Your task to perform on an android device: turn vacation reply on in the gmail app Image 0: 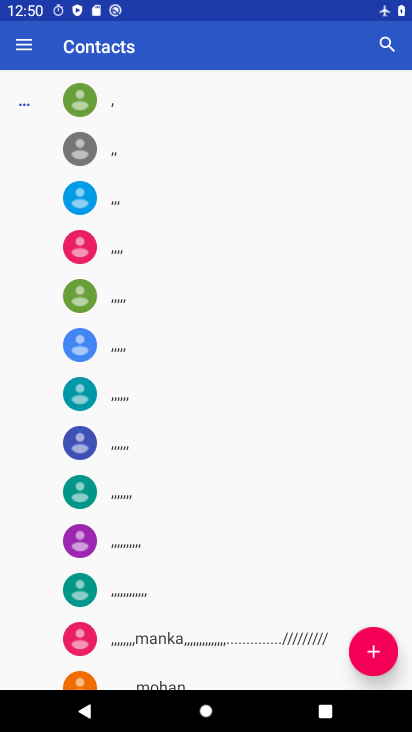
Step 0: press home button
Your task to perform on an android device: turn vacation reply on in the gmail app Image 1: 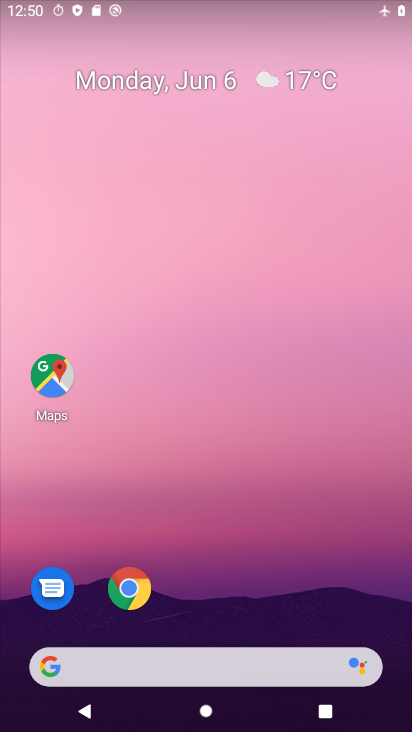
Step 1: drag from (216, 380) to (220, 52)
Your task to perform on an android device: turn vacation reply on in the gmail app Image 2: 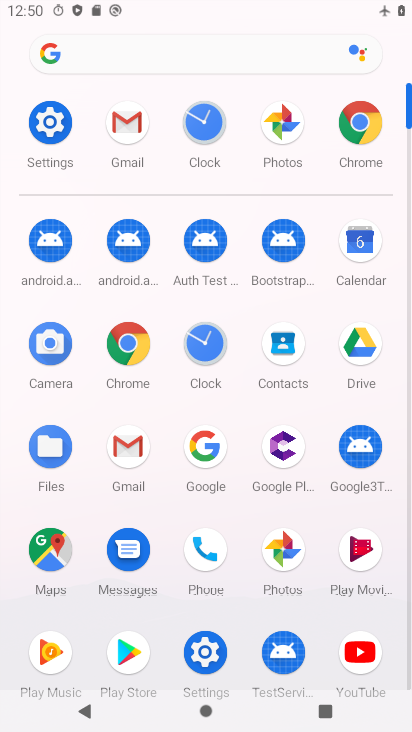
Step 2: click (128, 138)
Your task to perform on an android device: turn vacation reply on in the gmail app Image 3: 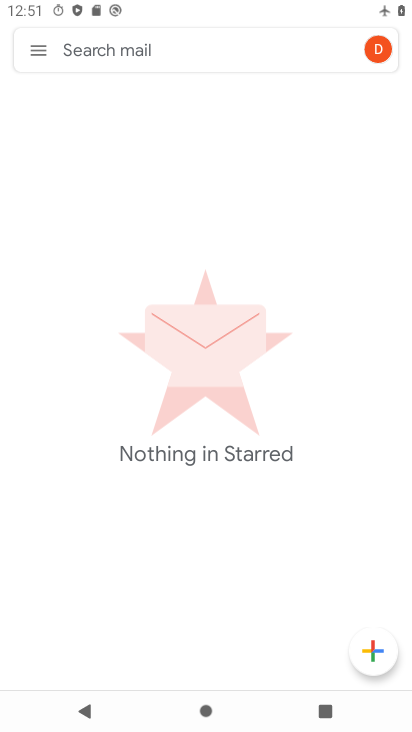
Step 3: click (38, 61)
Your task to perform on an android device: turn vacation reply on in the gmail app Image 4: 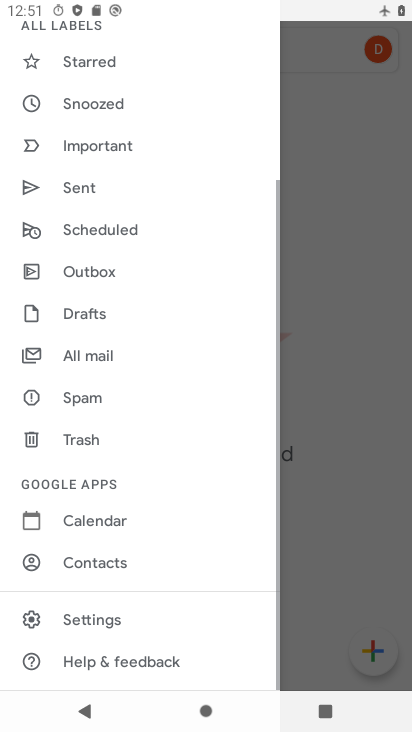
Step 4: click (108, 626)
Your task to perform on an android device: turn vacation reply on in the gmail app Image 5: 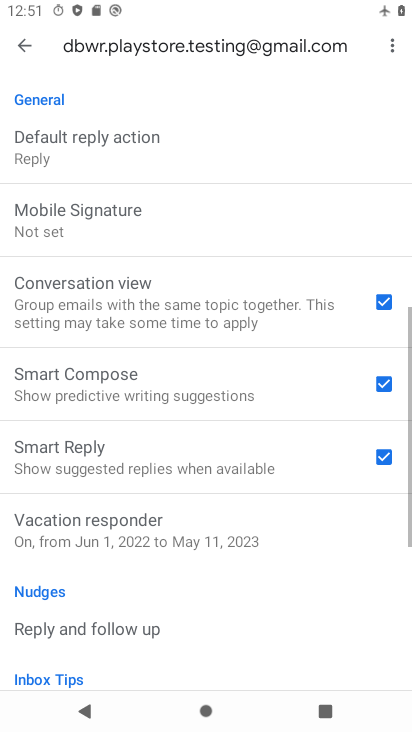
Step 5: drag from (173, 536) to (222, 36)
Your task to perform on an android device: turn vacation reply on in the gmail app Image 6: 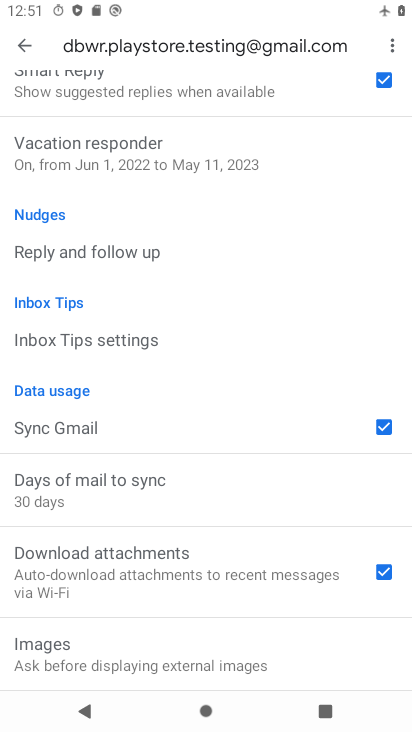
Step 6: click (146, 155)
Your task to perform on an android device: turn vacation reply on in the gmail app Image 7: 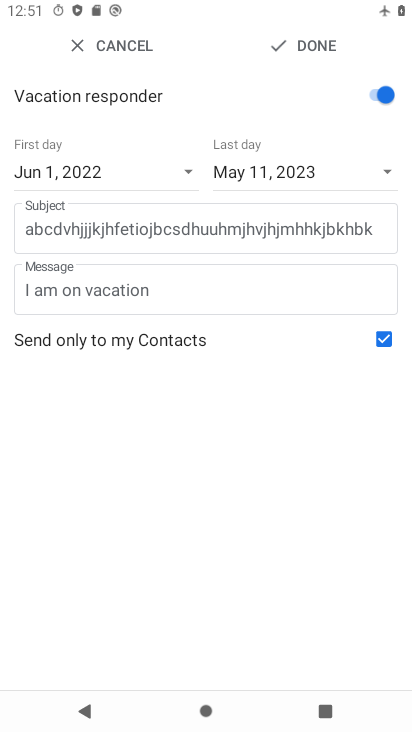
Step 7: task complete